Your task to perform on an android device: What is the recent news? Image 0: 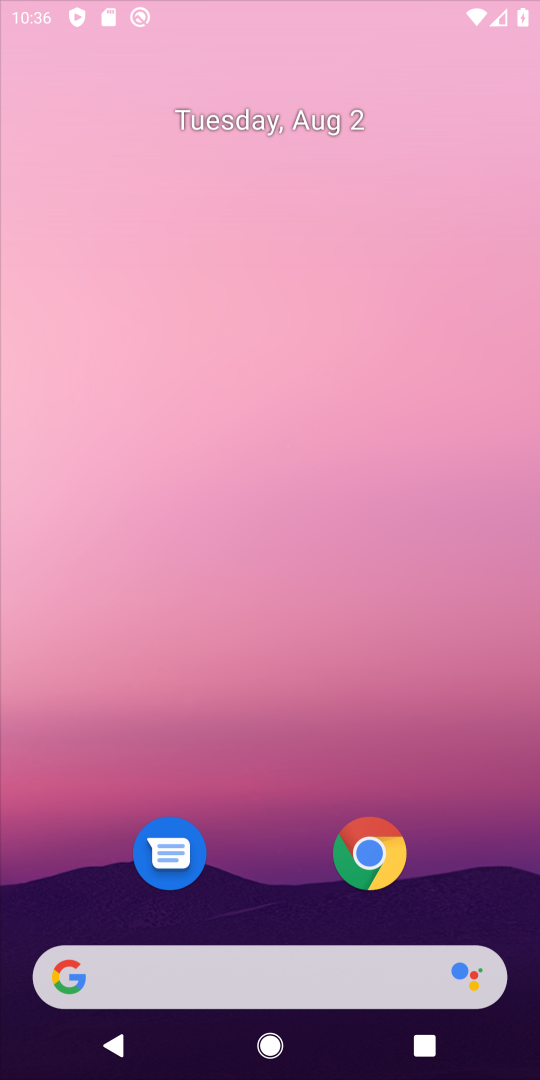
Step 0: click (277, 977)
Your task to perform on an android device: What is the recent news? Image 1: 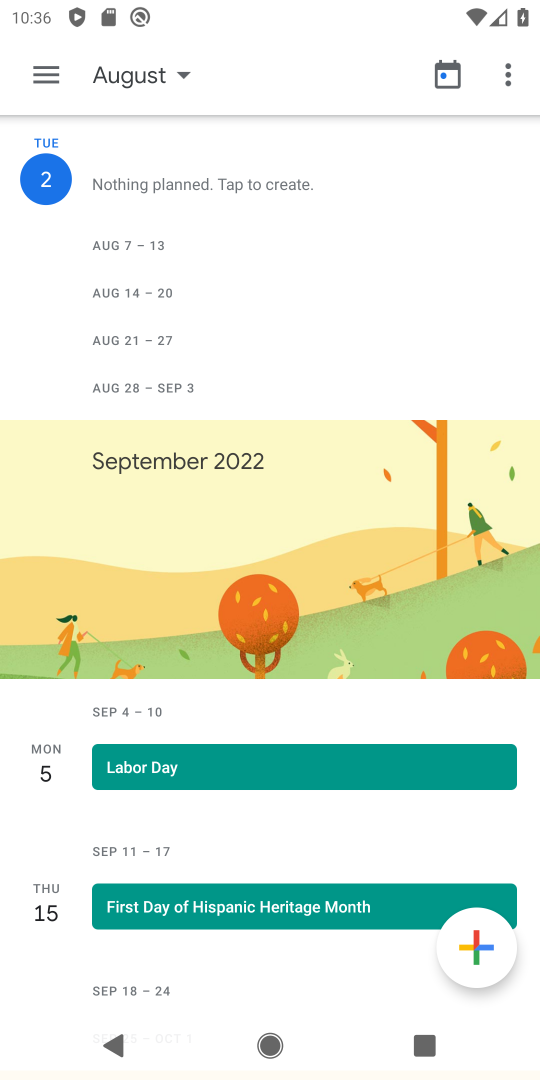
Step 1: task complete